Your task to perform on an android device: empty trash in the gmail app Image 0: 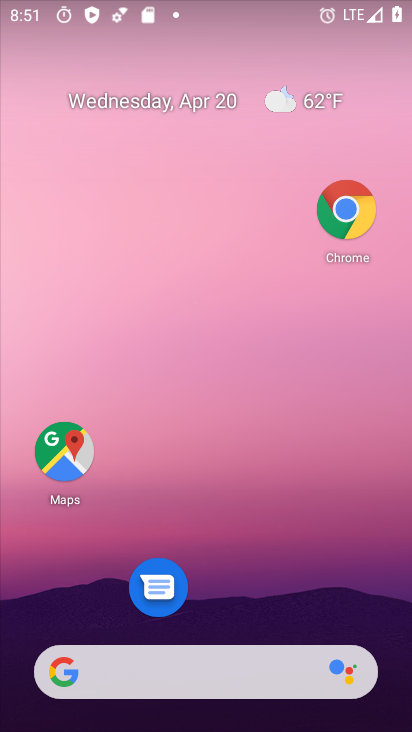
Step 0: drag from (249, 614) to (239, 81)
Your task to perform on an android device: empty trash in the gmail app Image 1: 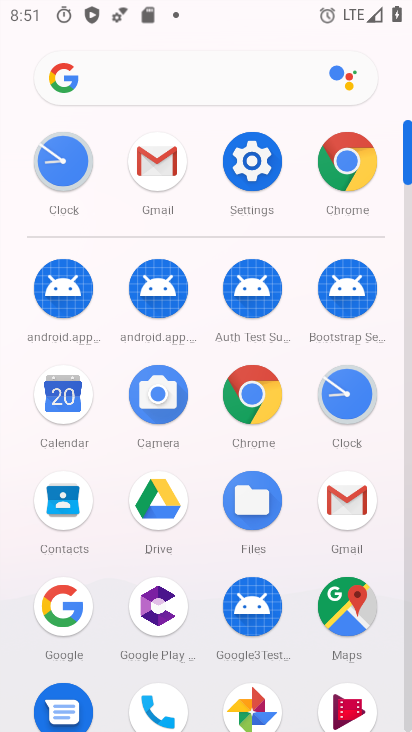
Step 1: click (146, 176)
Your task to perform on an android device: empty trash in the gmail app Image 2: 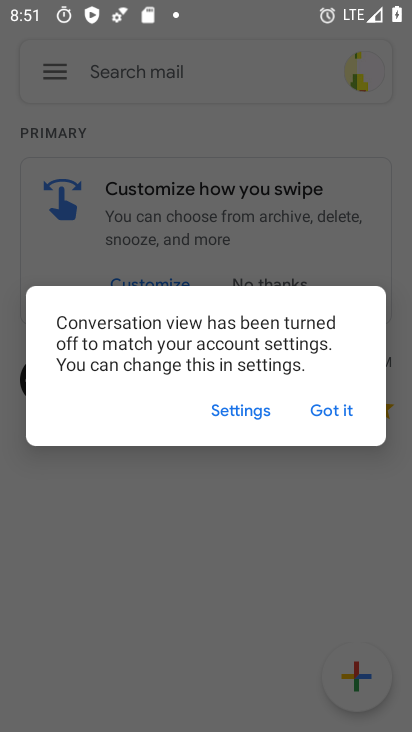
Step 2: click (336, 417)
Your task to perform on an android device: empty trash in the gmail app Image 3: 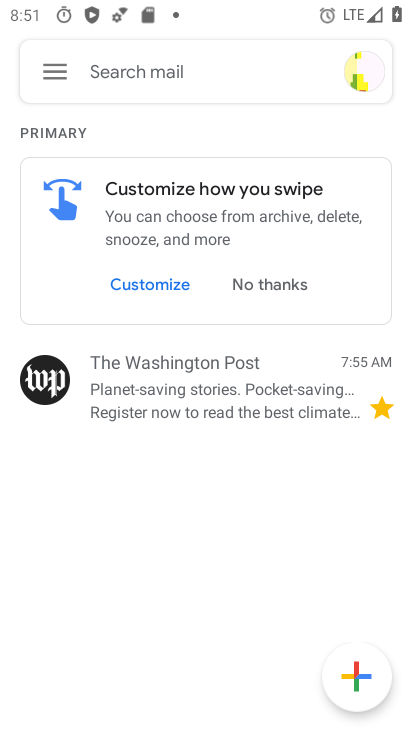
Step 3: click (63, 66)
Your task to perform on an android device: empty trash in the gmail app Image 4: 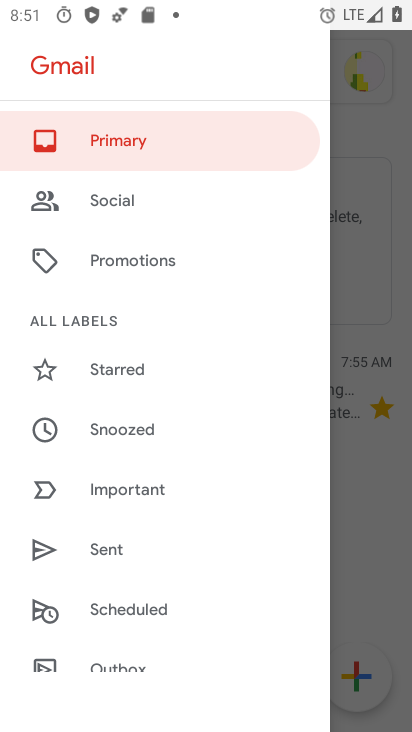
Step 4: drag from (122, 534) to (148, 137)
Your task to perform on an android device: empty trash in the gmail app Image 5: 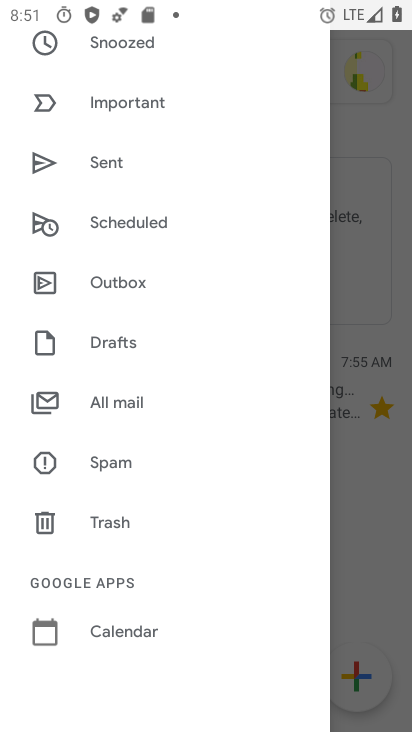
Step 5: click (104, 521)
Your task to perform on an android device: empty trash in the gmail app Image 6: 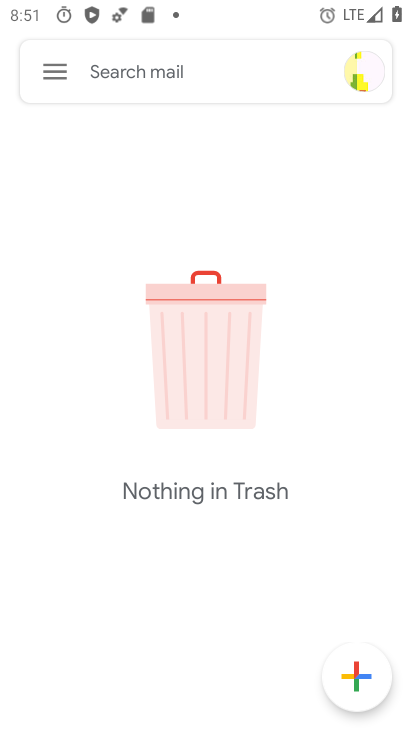
Step 6: task complete